Your task to perform on an android device: empty trash in google photos Image 0: 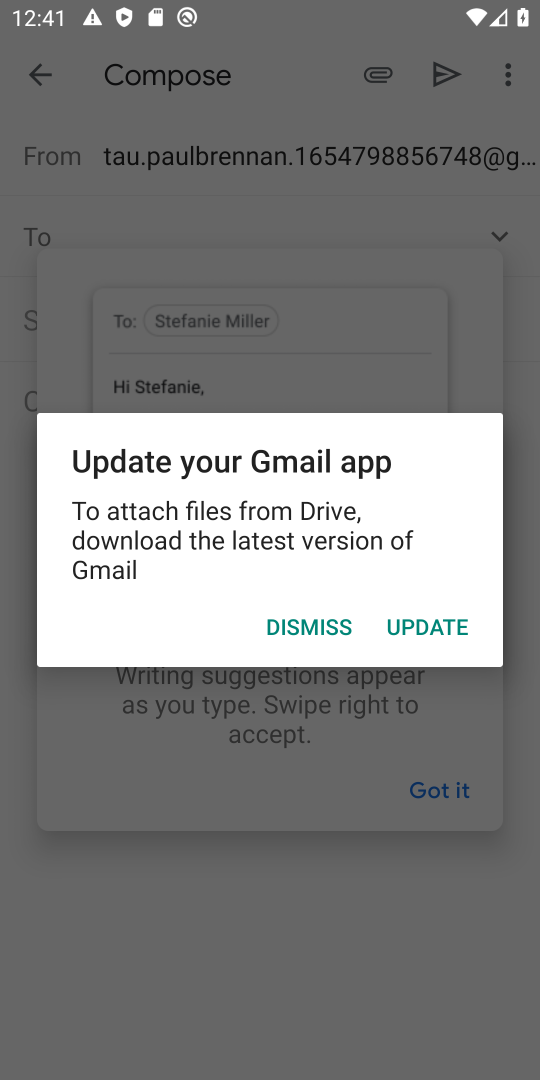
Step 0: click (287, 623)
Your task to perform on an android device: empty trash in google photos Image 1: 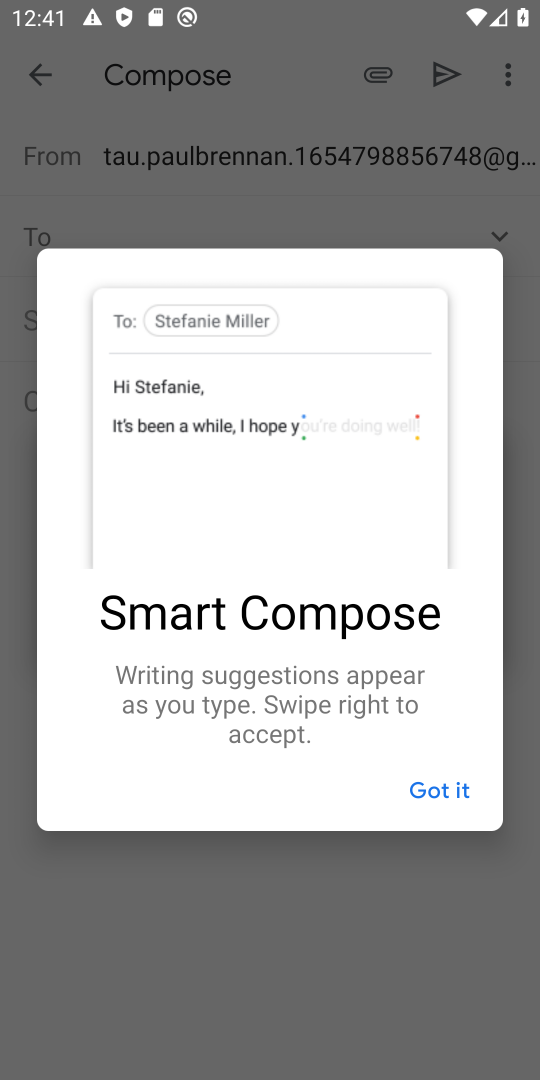
Step 1: click (468, 792)
Your task to perform on an android device: empty trash in google photos Image 2: 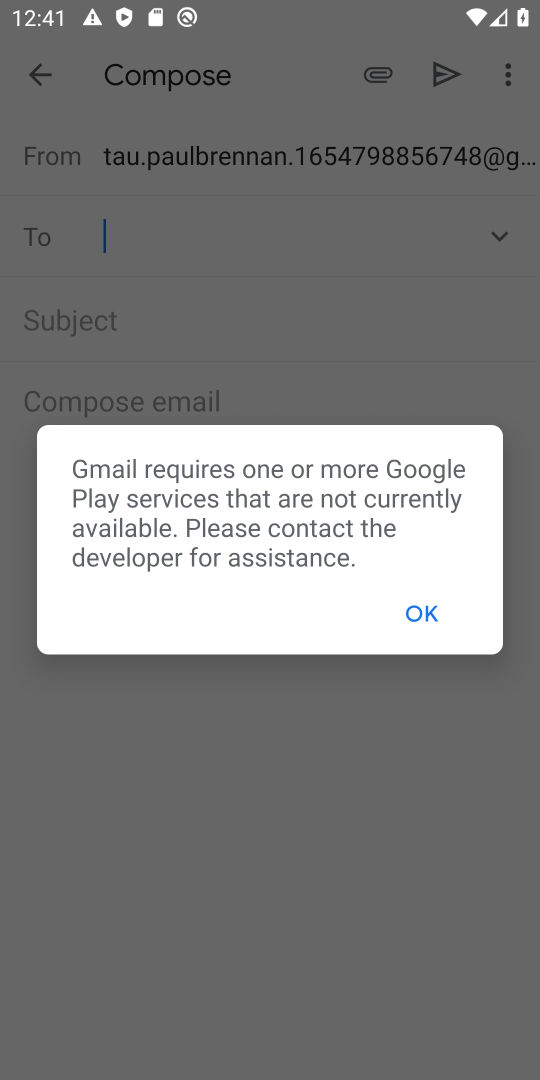
Step 2: press home button
Your task to perform on an android device: empty trash in google photos Image 3: 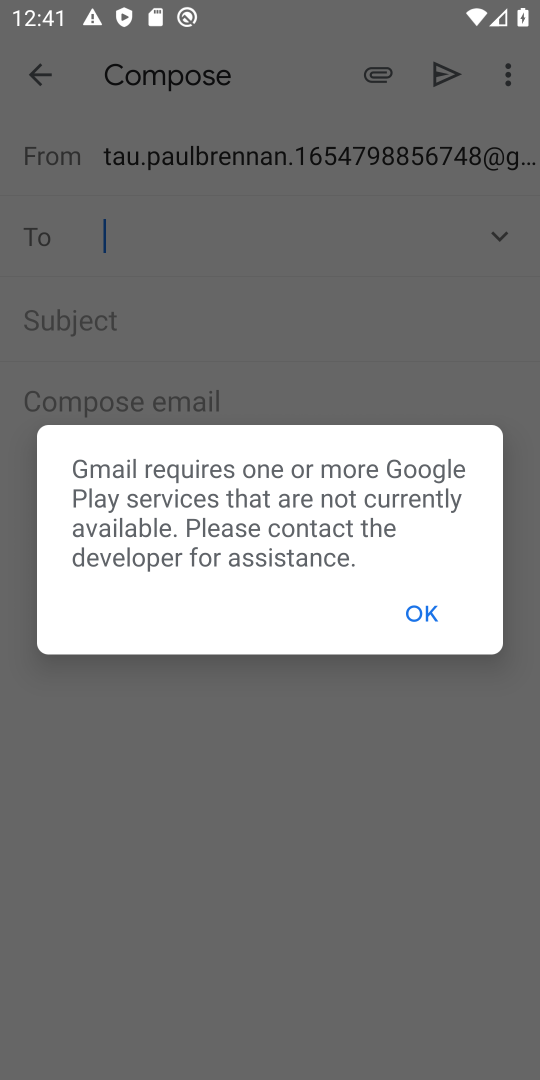
Step 3: press home button
Your task to perform on an android device: empty trash in google photos Image 4: 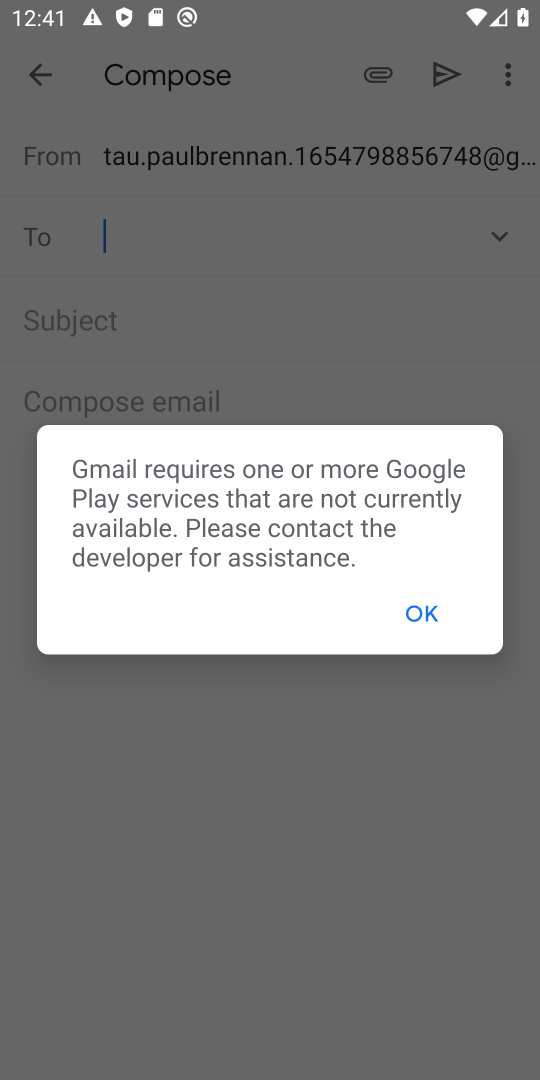
Step 4: click (423, 615)
Your task to perform on an android device: empty trash in google photos Image 5: 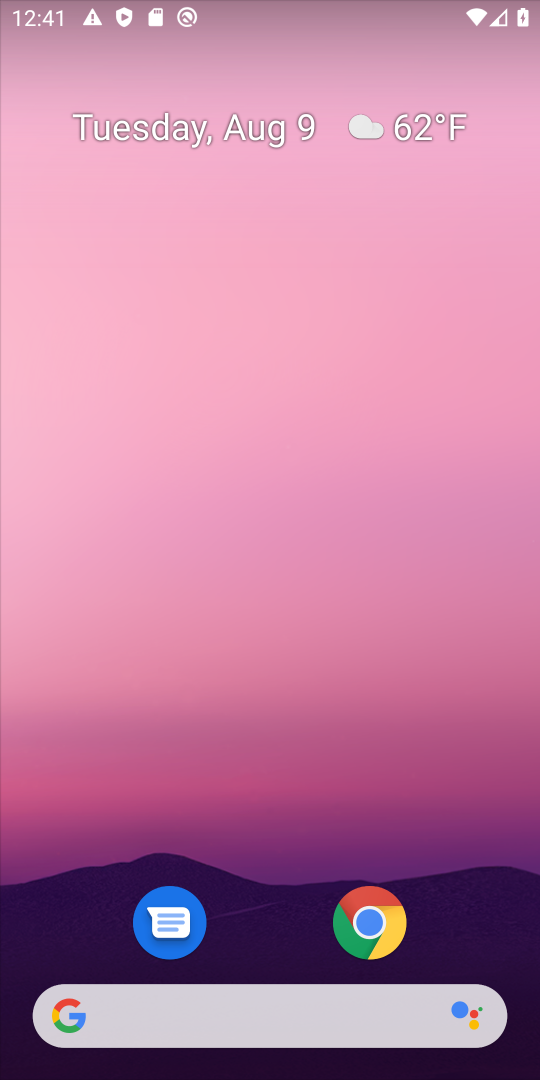
Step 5: drag from (247, 941) to (69, 344)
Your task to perform on an android device: empty trash in google photos Image 6: 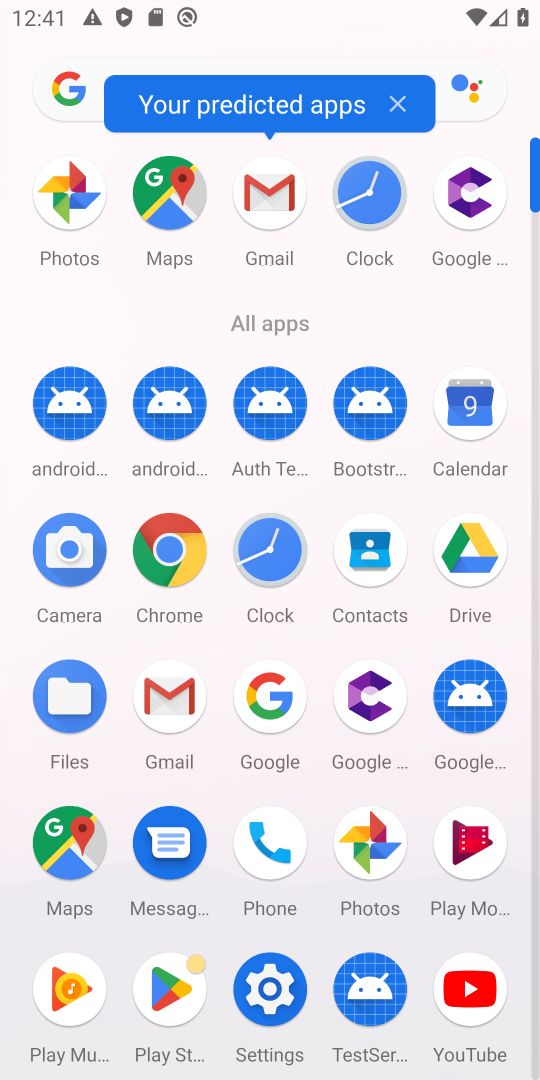
Step 6: click (366, 855)
Your task to perform on an android device: empty trash in google photos Image 7: 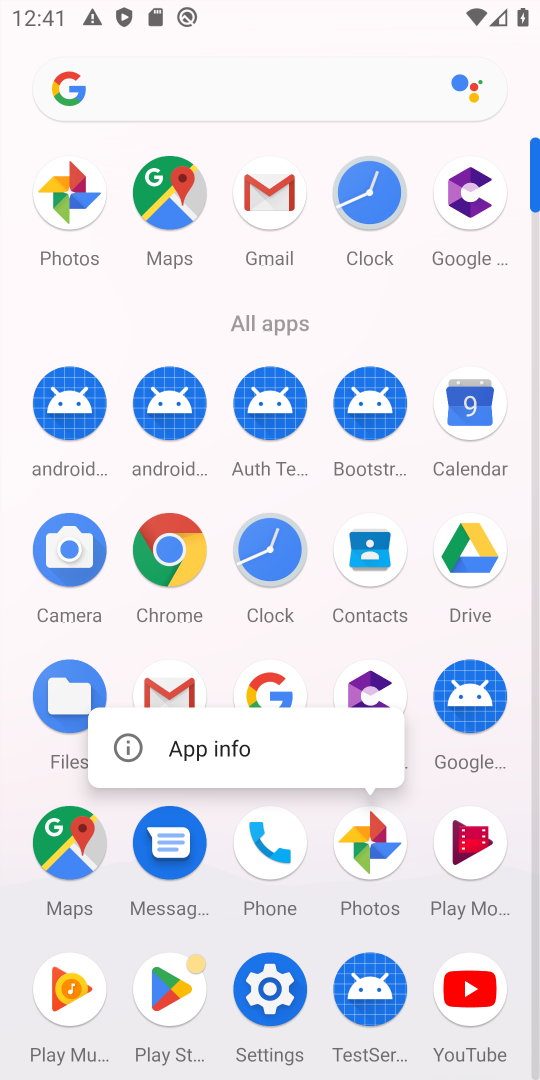
Step 7: click (366, 855)
Your task to perform on an android device: empty trash in google photos Image 8: 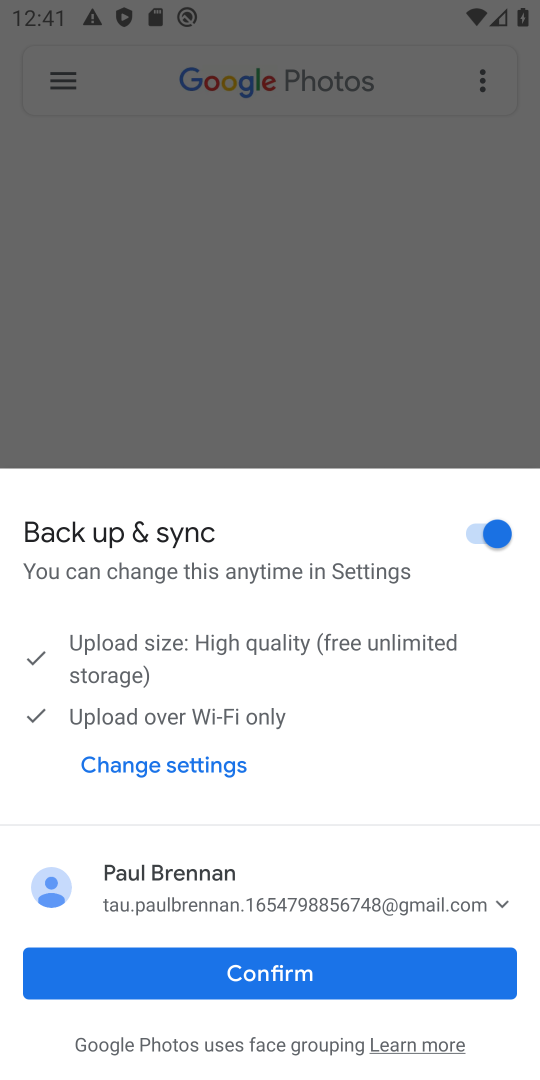
Step 8: click (286, 965)
Your task to perform on an android device: empty trash in google photos Image 9: 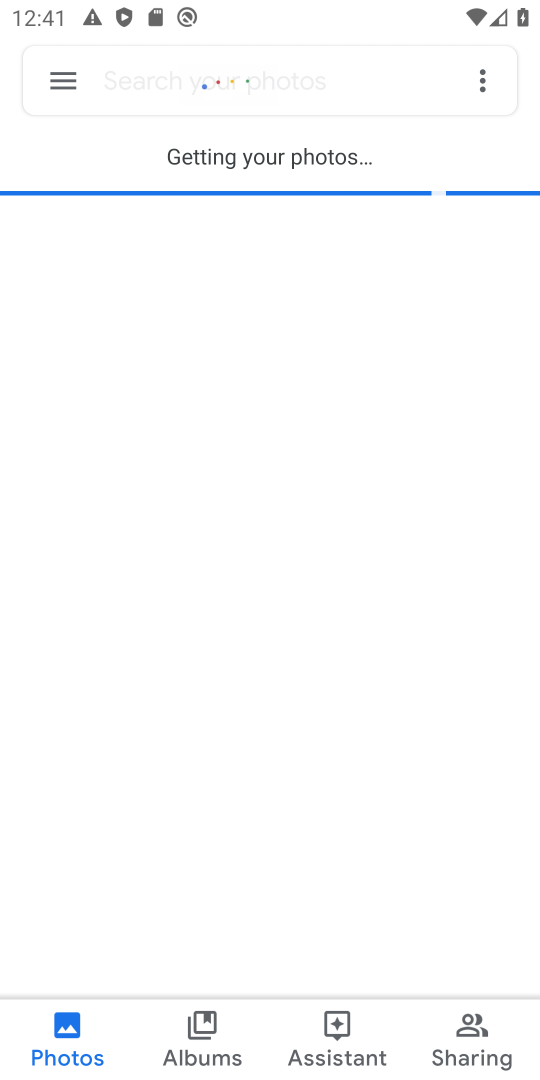
Step 9: click (58, 84)
Your task to perform on an android device: empty trash in google photos Image 10: 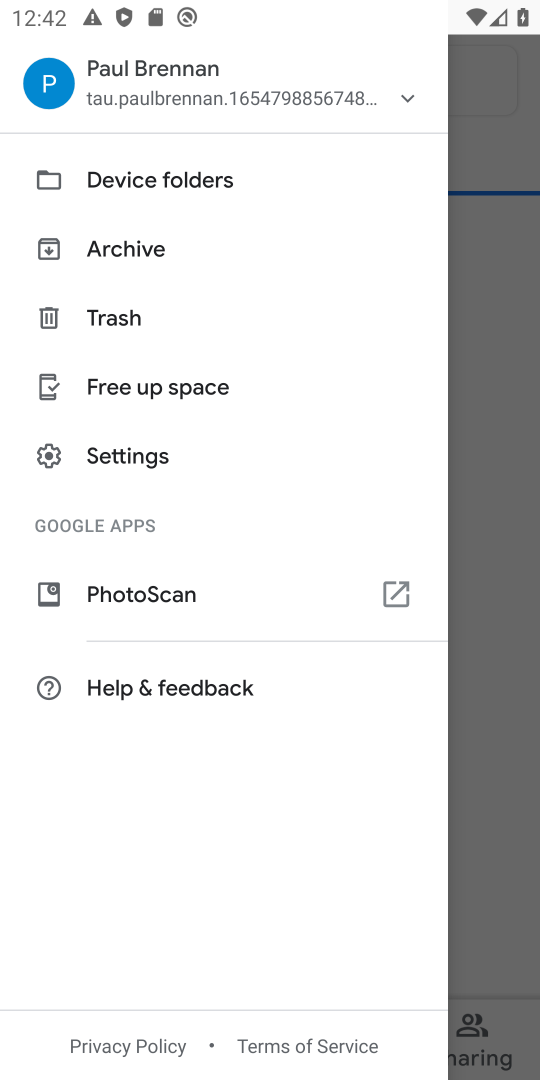
Step 10: click (110, 316)
Your task to perform on an android device: empty trash in google photos Image 11: 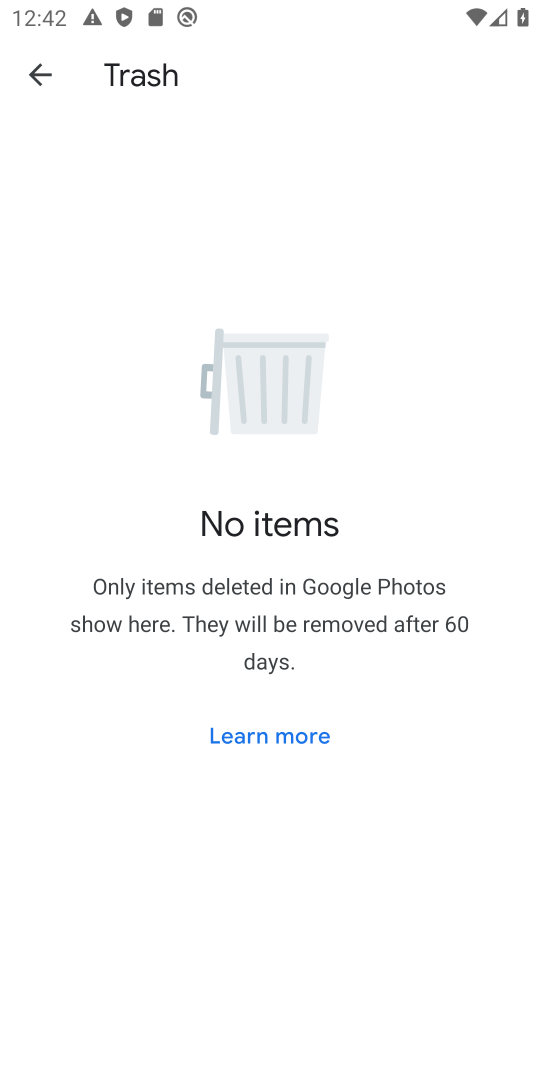
Step 11: task complete